Your task to perform on an android device: open app "Roku - Official Remote Control" Image 0: 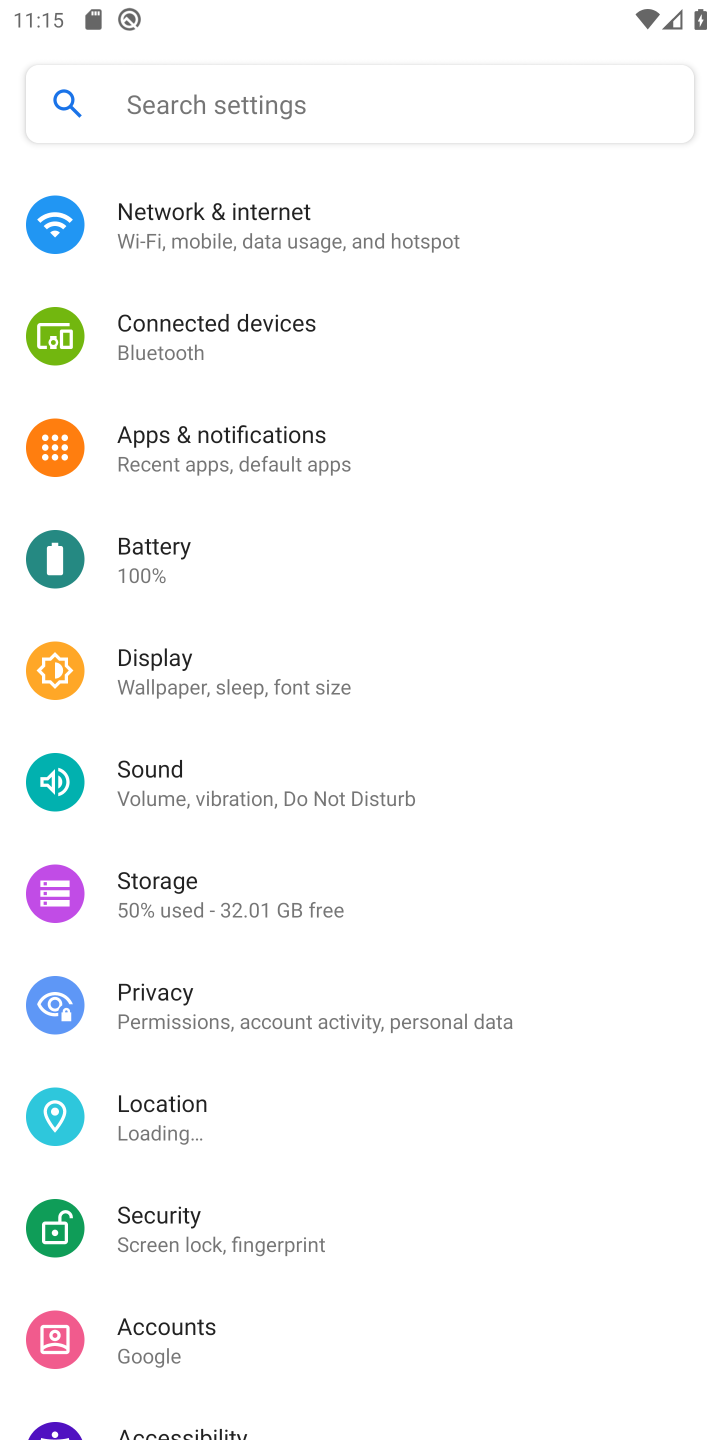
Step 0: press home button
Your task to perform on an android device: open app "Roku - Official Remote Control" Image 1: 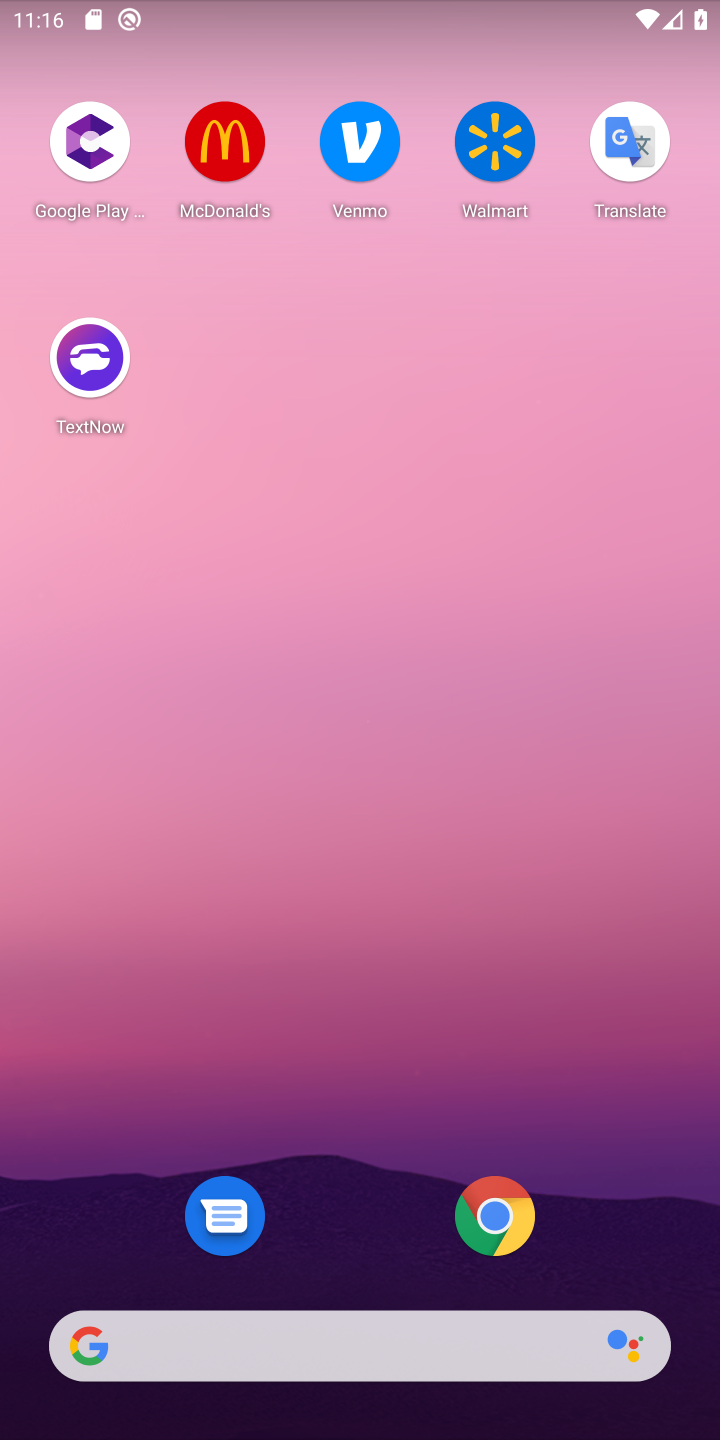
Step 1: drag from (530, 1112) to (478, 320)
Your task to perform on an android device: open app "Roku - Official Remote Control" Image 2: 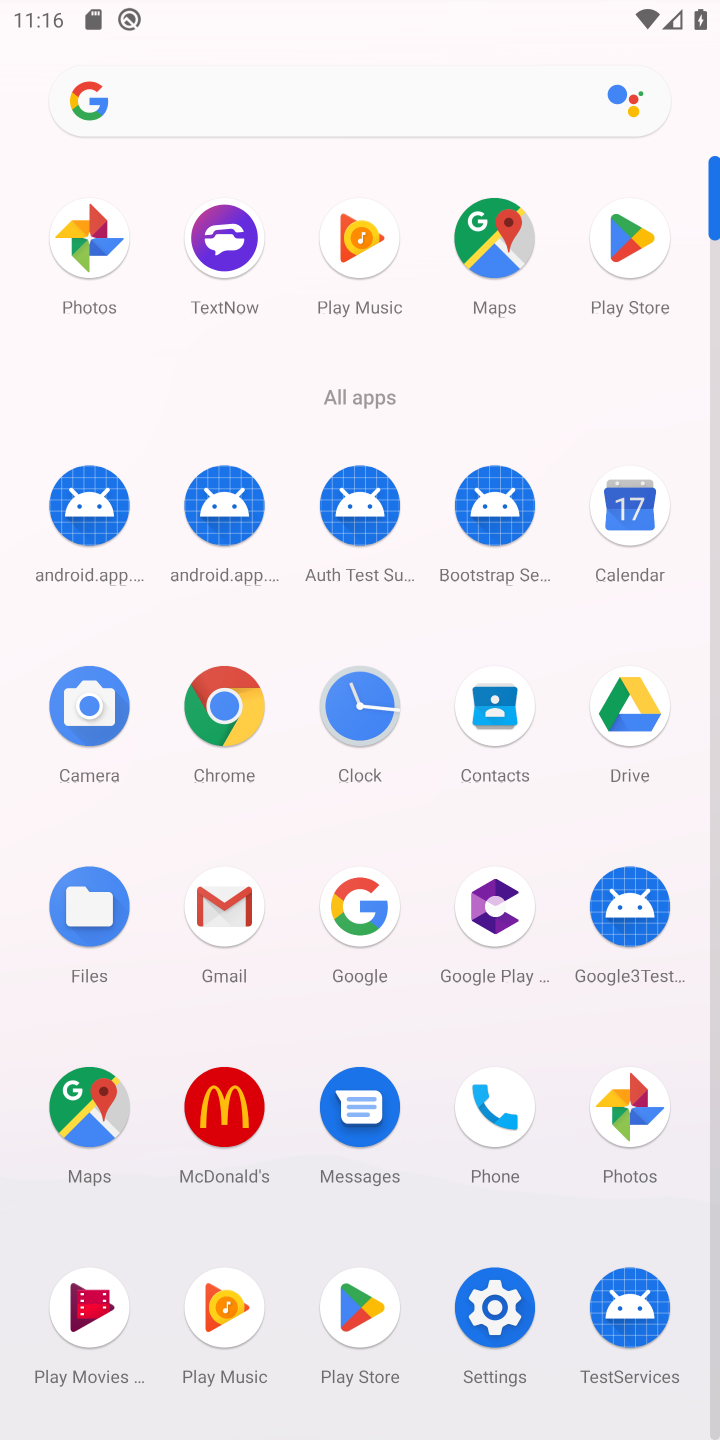
Step 2: click (353, 1300)
Your task to perform on an android device: open app "Roku - Official Remote Control" Image 3: 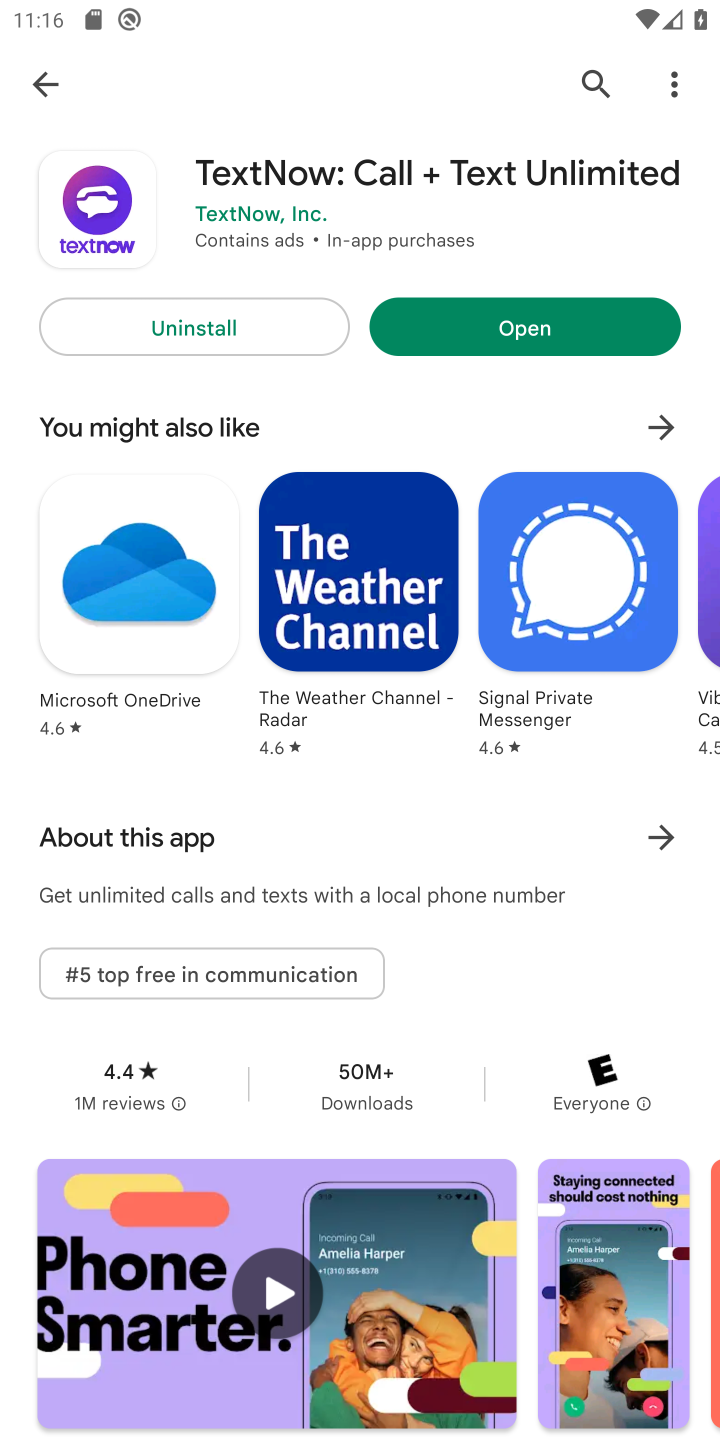
Step 3: click (614, 91)
Your task to perform on an android device: open app "Roku - Official Remote Control" Image 4: 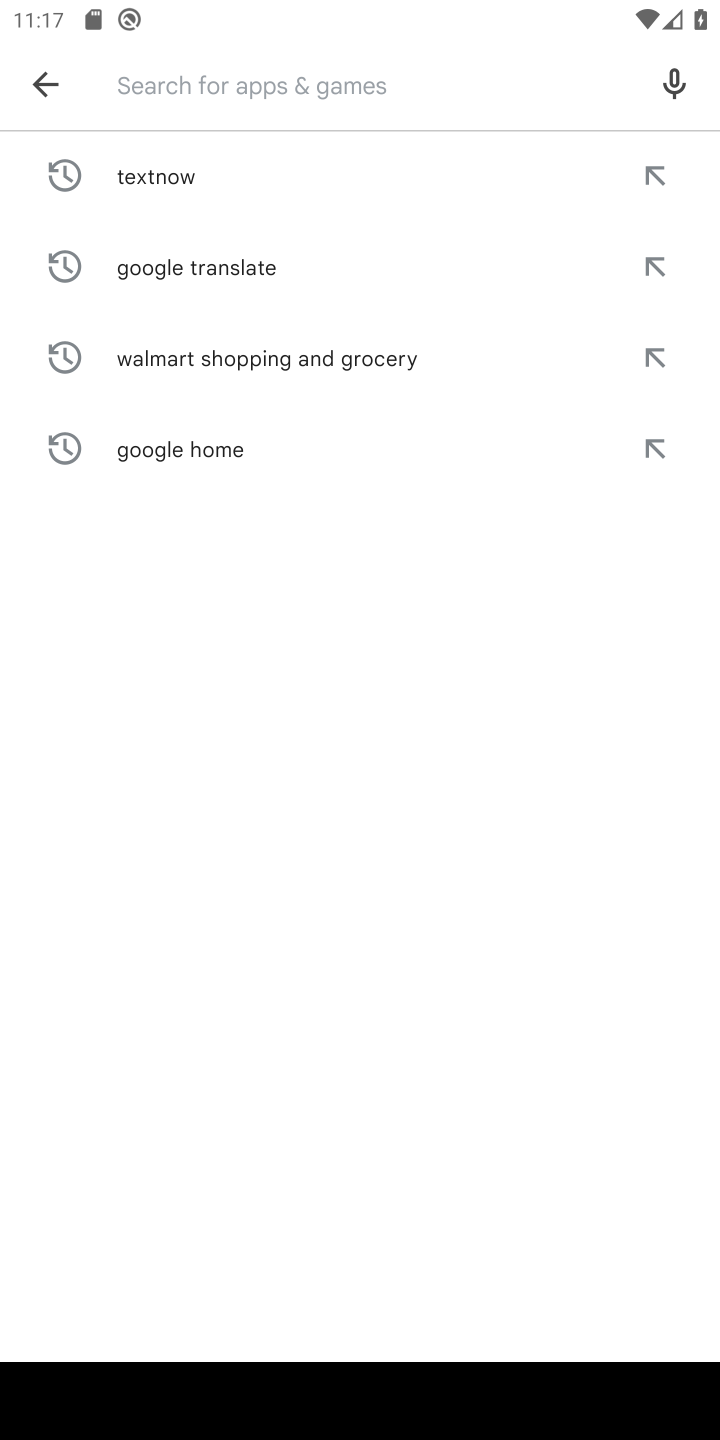
Step 4: type "roku - official"
Your task to perform on an android device: open app "Roku - Official Remote Control" Image 5: 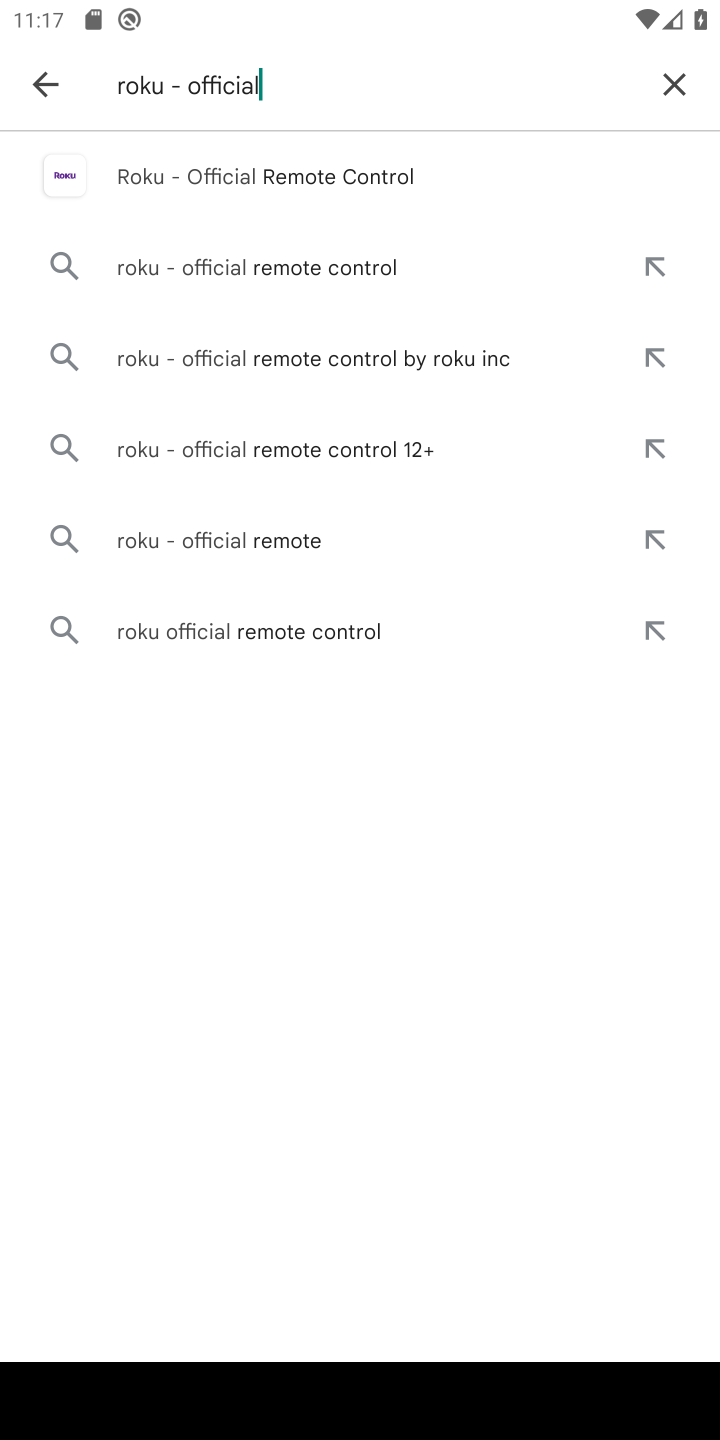
Step 5: click (336, 176)
Your task to perform on an android device: open app "Roku - Official Remote Control" Image 6: 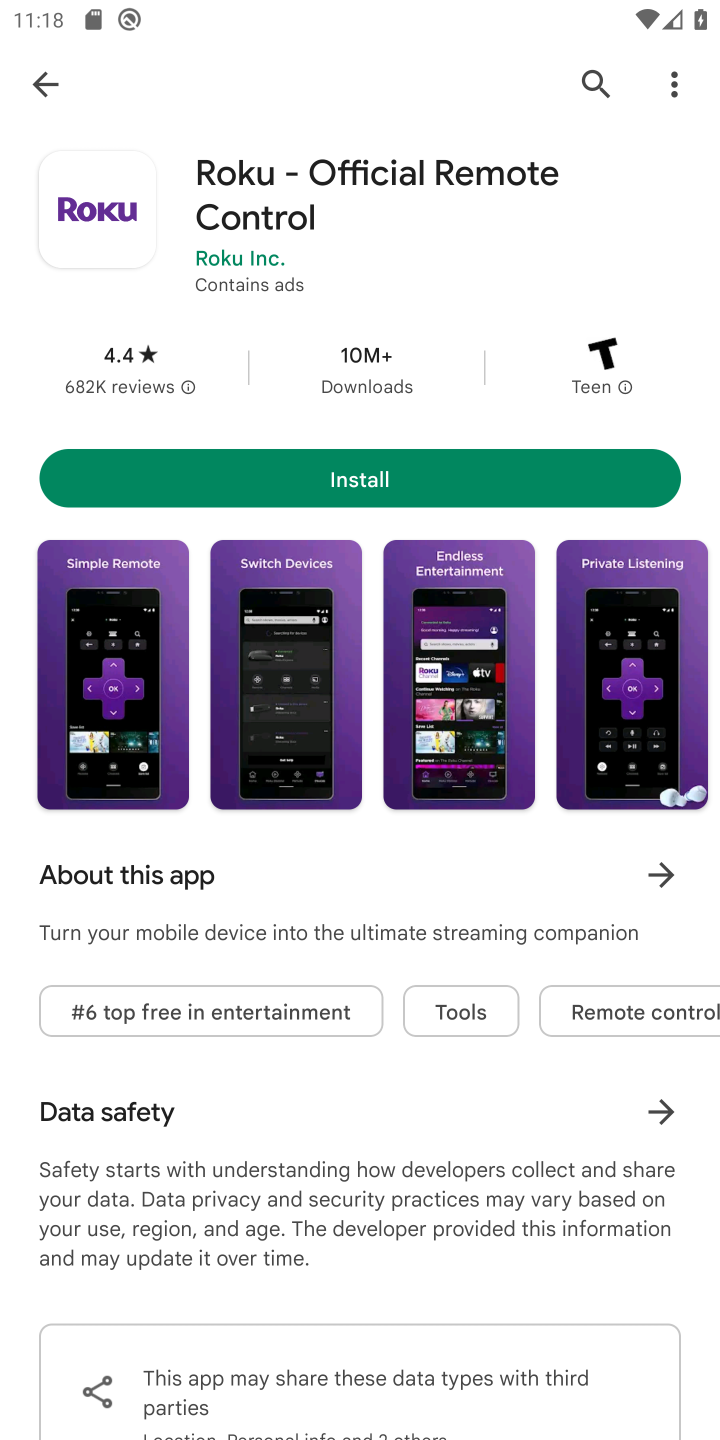
Step 6: task complete